Your task to perform on an android device: Add "alienware area 51" to the cart on walmart Image 0: 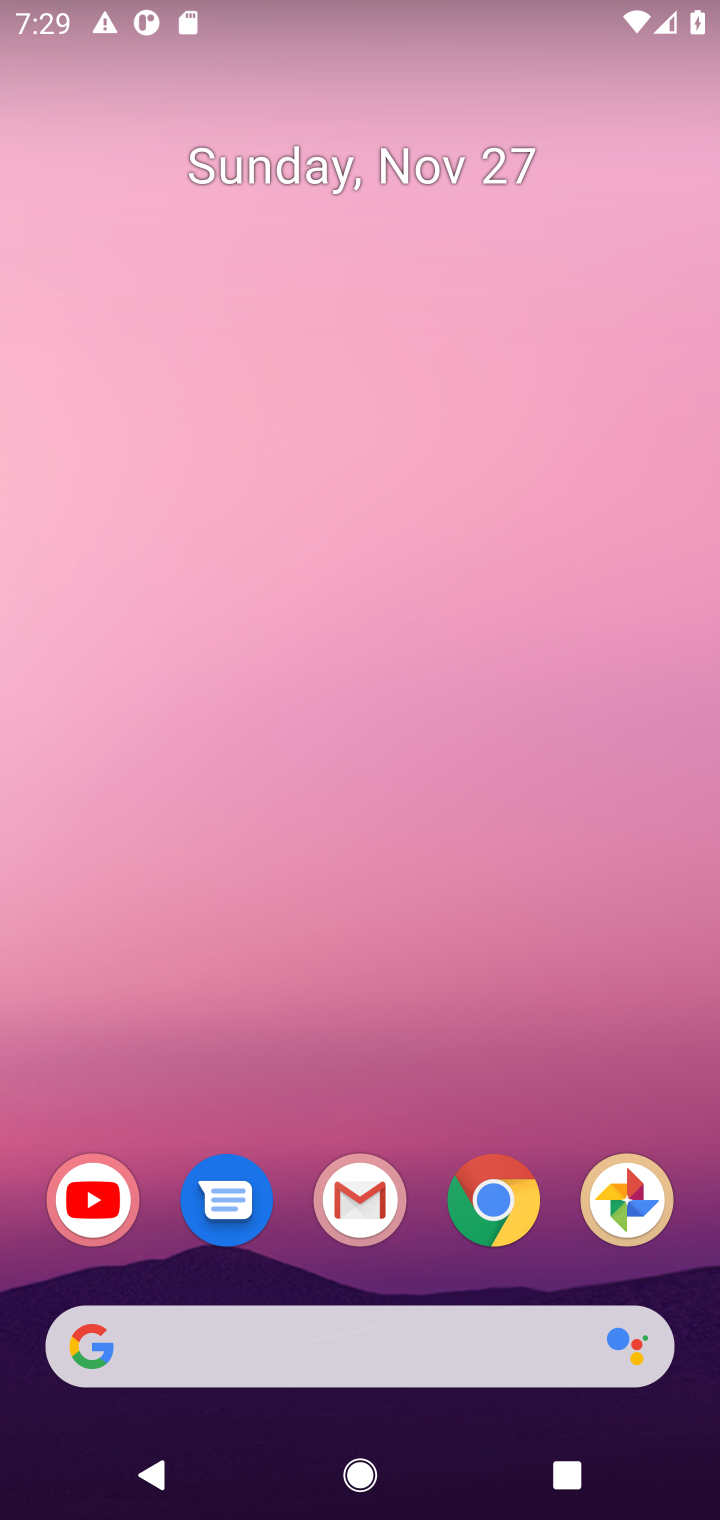
Step 0: click (474, 1198)
Your task to perform on an android device: Add "alienware area 51" to the cart on walmart Image 1: 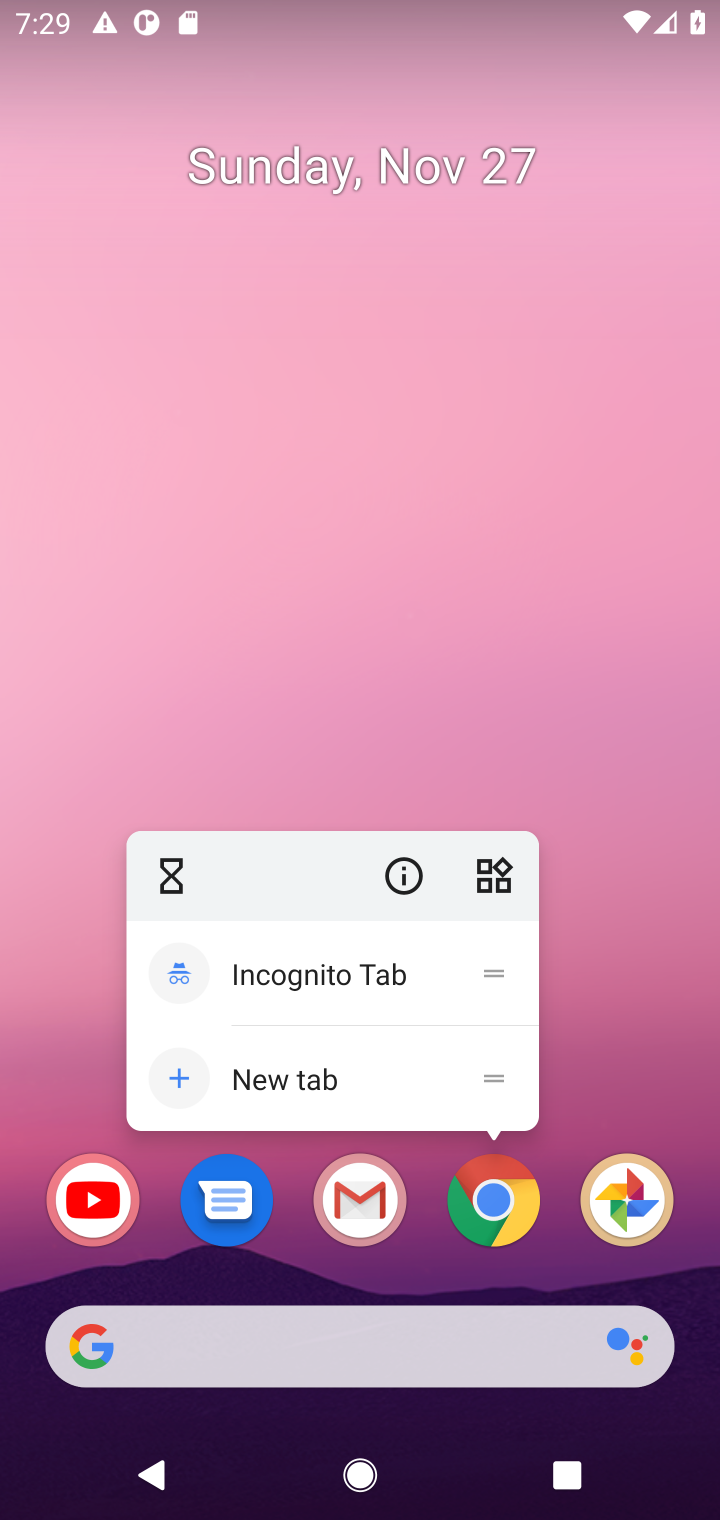
Step 1: click (492, 1234)
Your task to perform on an android device: Add "alienware area 51" to the cart on walmart Image 2: 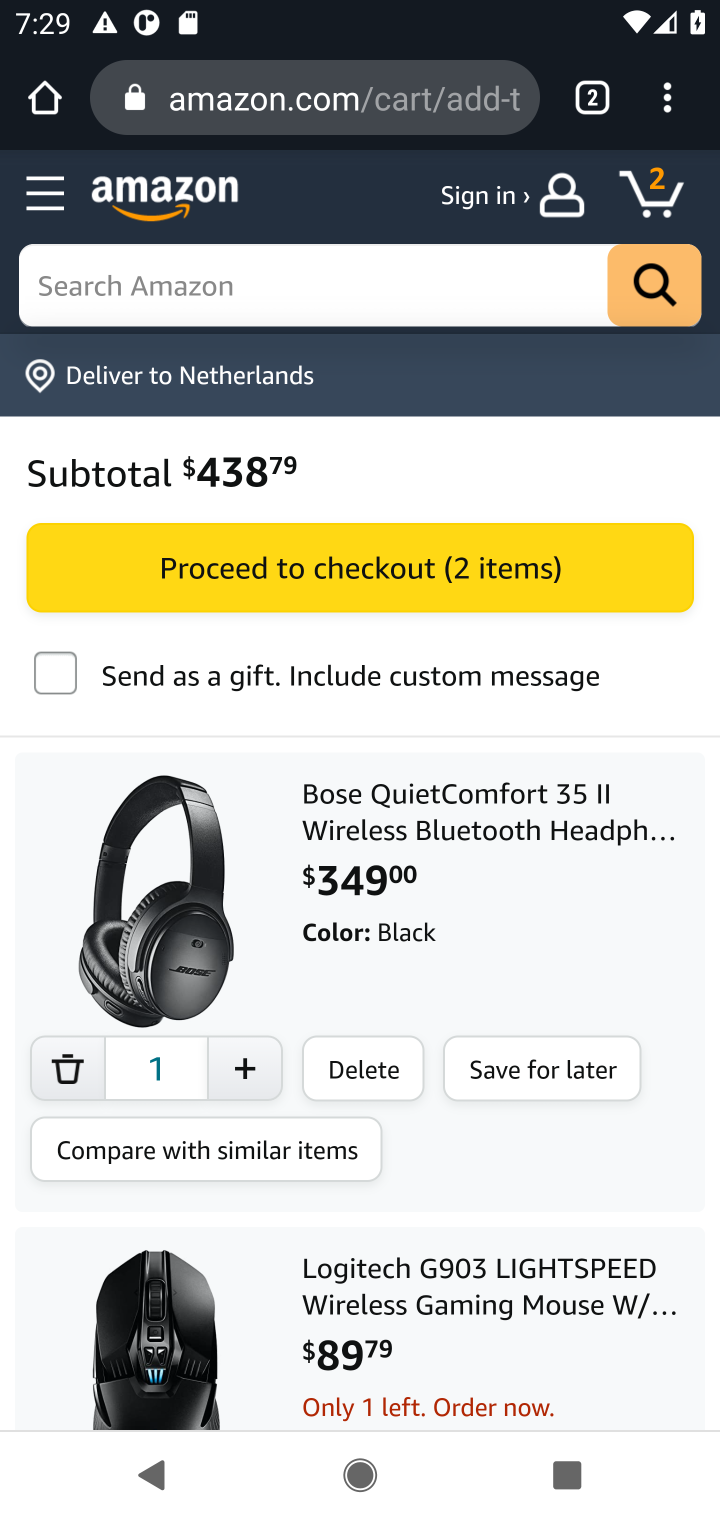
Step 2: click (265, 97)
Your task to perform on an android device: Add "alienware area 51" to the cart on walmart Image 3: 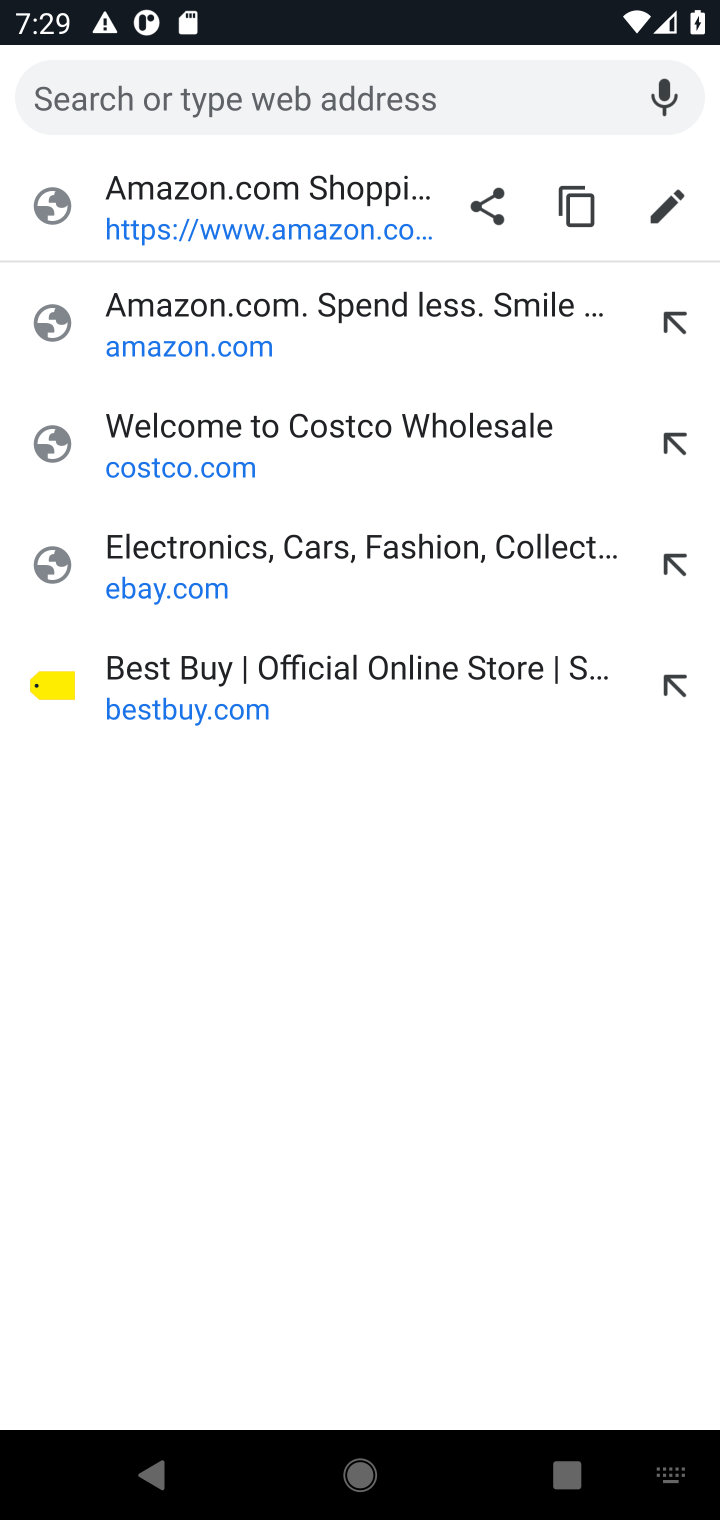
Step 3: type "walmart.com"
Your task to perform on an android device: Add "alienware area 51" to the cart on walmart Image 4: 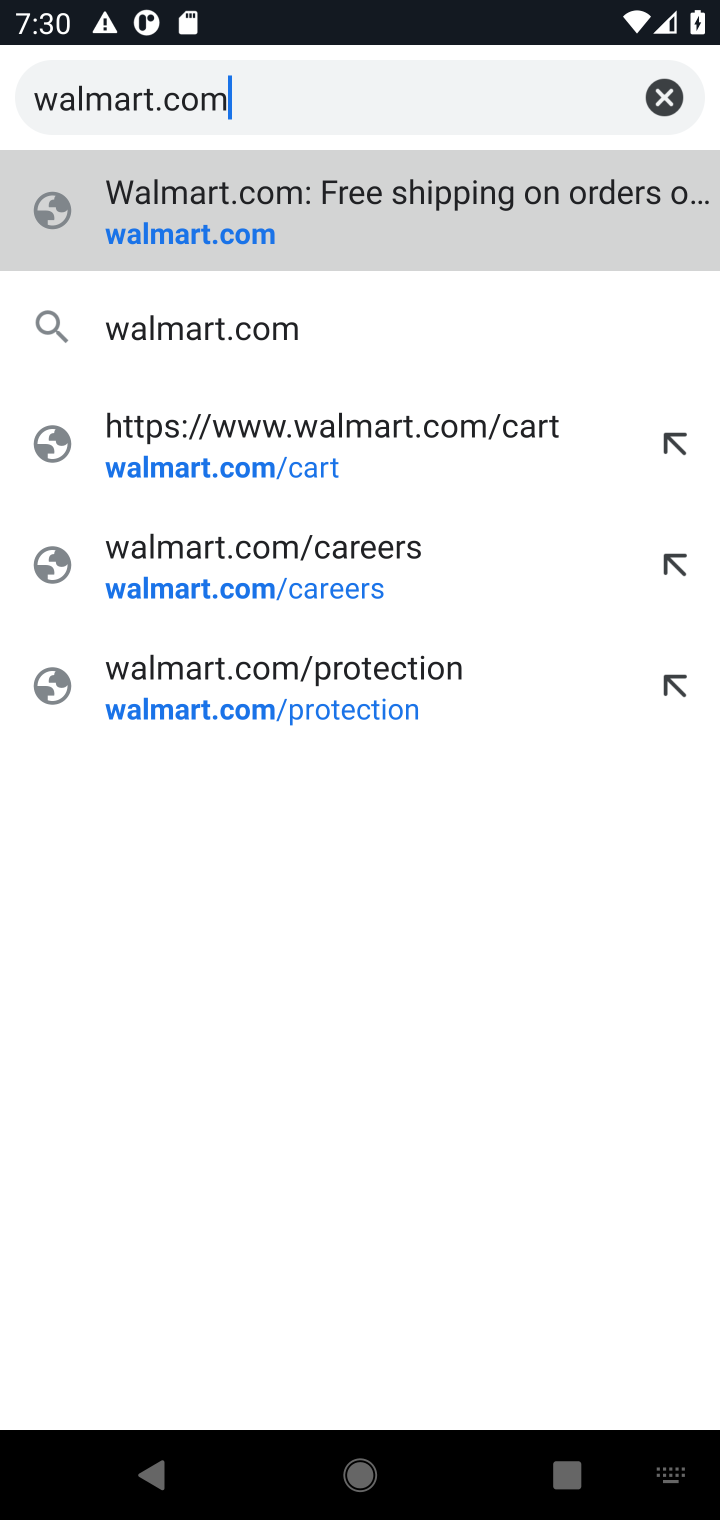
Step 4: click (216, 238)
Your task to perform on an android device: Add "alienware area 51" to the cart on walmart Image 5: 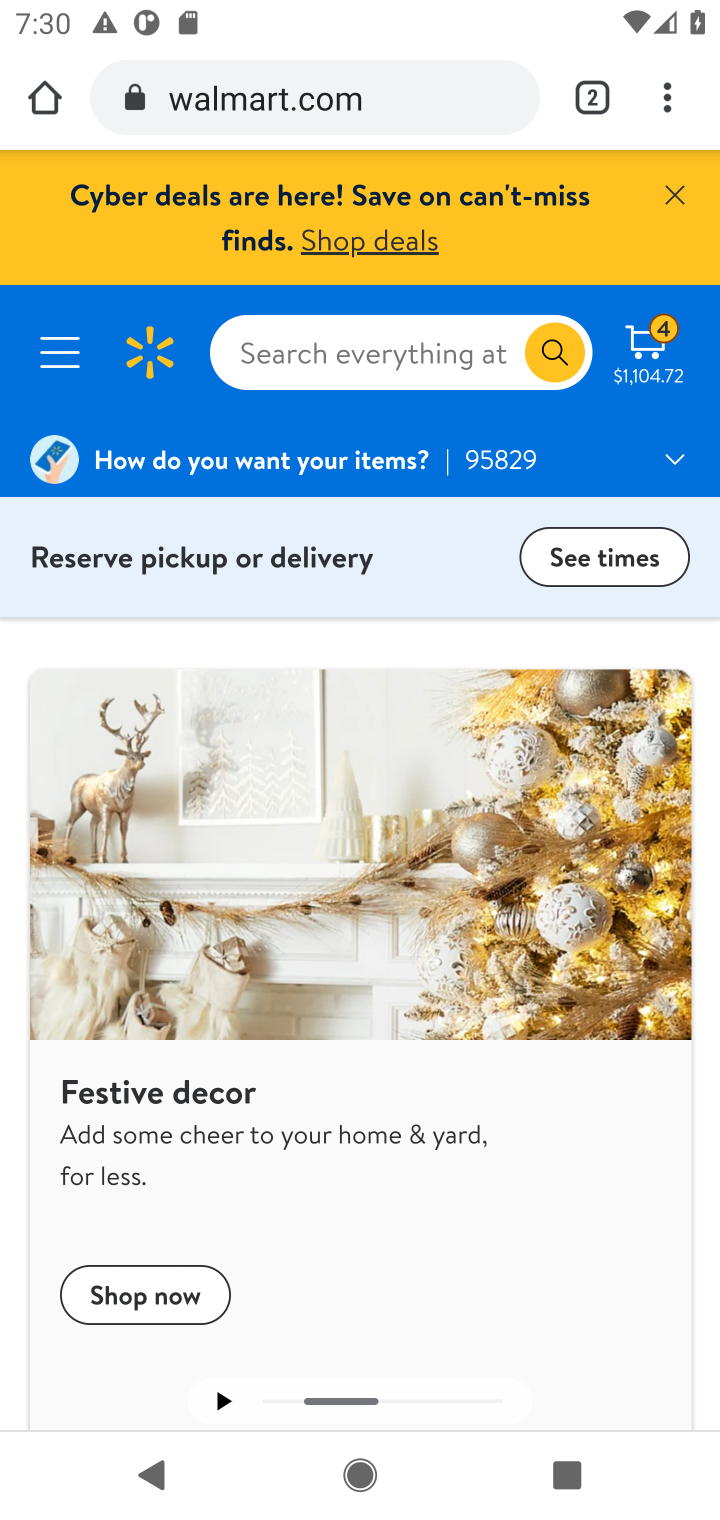
Step 5: click (284, 338)
Your task to perform on an android device: Add "alienware area 51" to the cart on walmart Image 6: 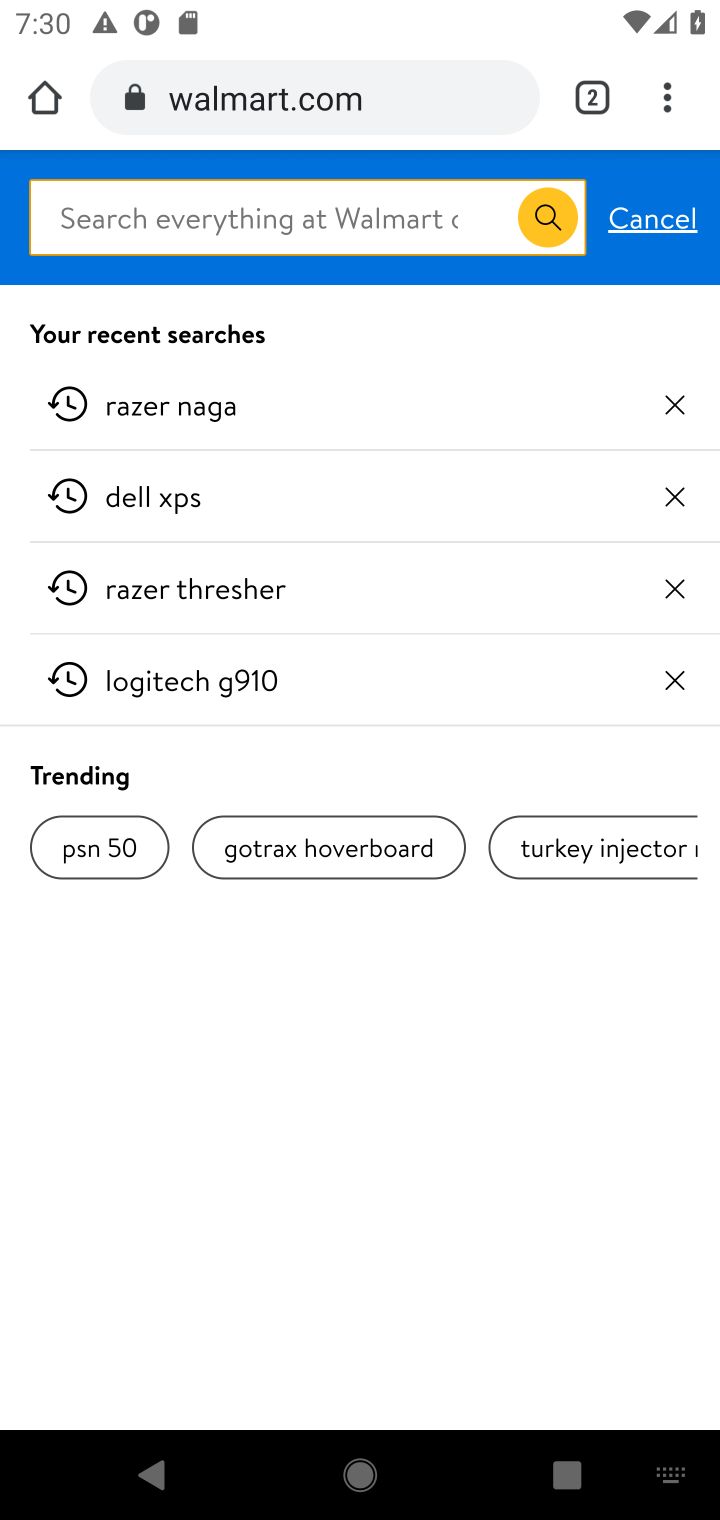
Step 6: type "alienware area 51"
Your task to perform on an android device: Add "alienware area 51" to the cart on walmart Image 7: 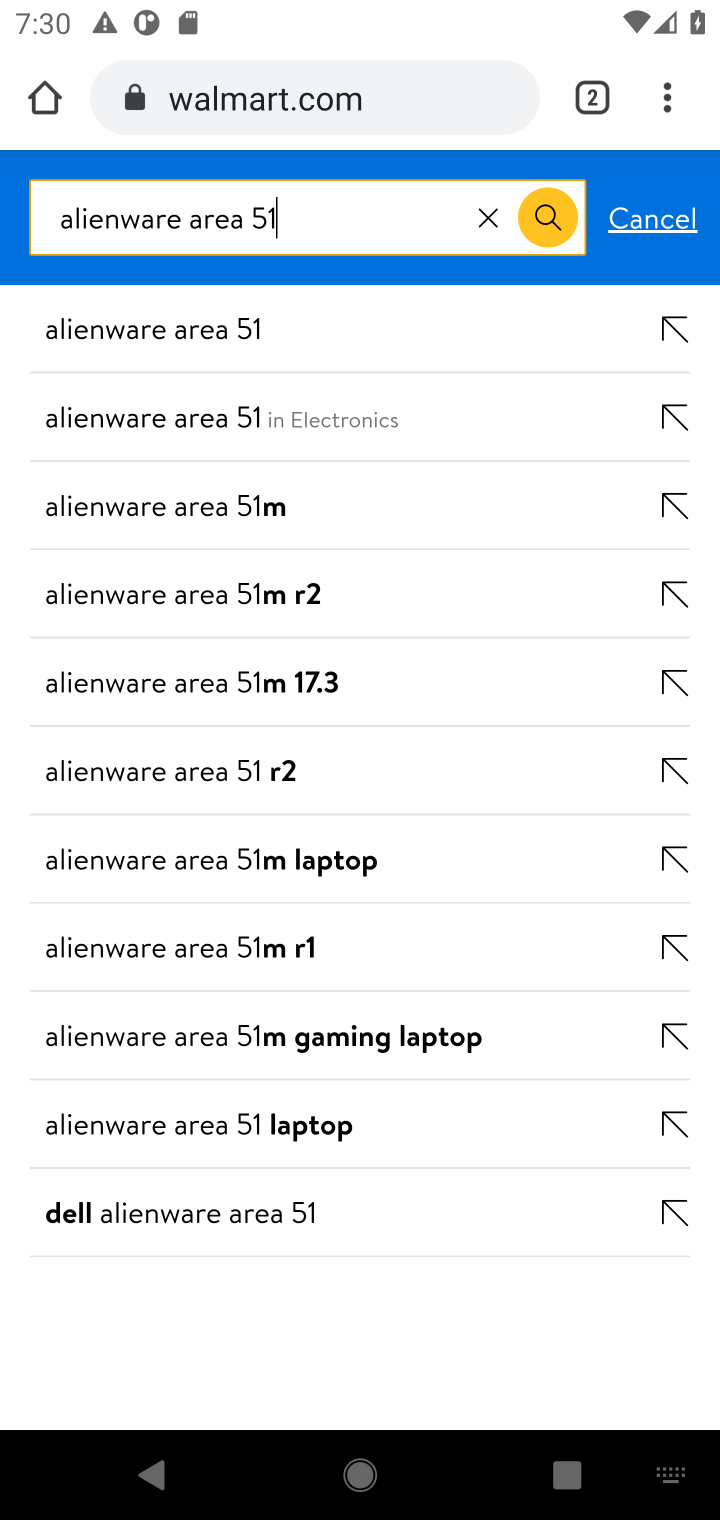
Step 7: click (216, 331)
Your task to perform on an android device: Add "alienware area 51" to the cart on walmart Image 8: 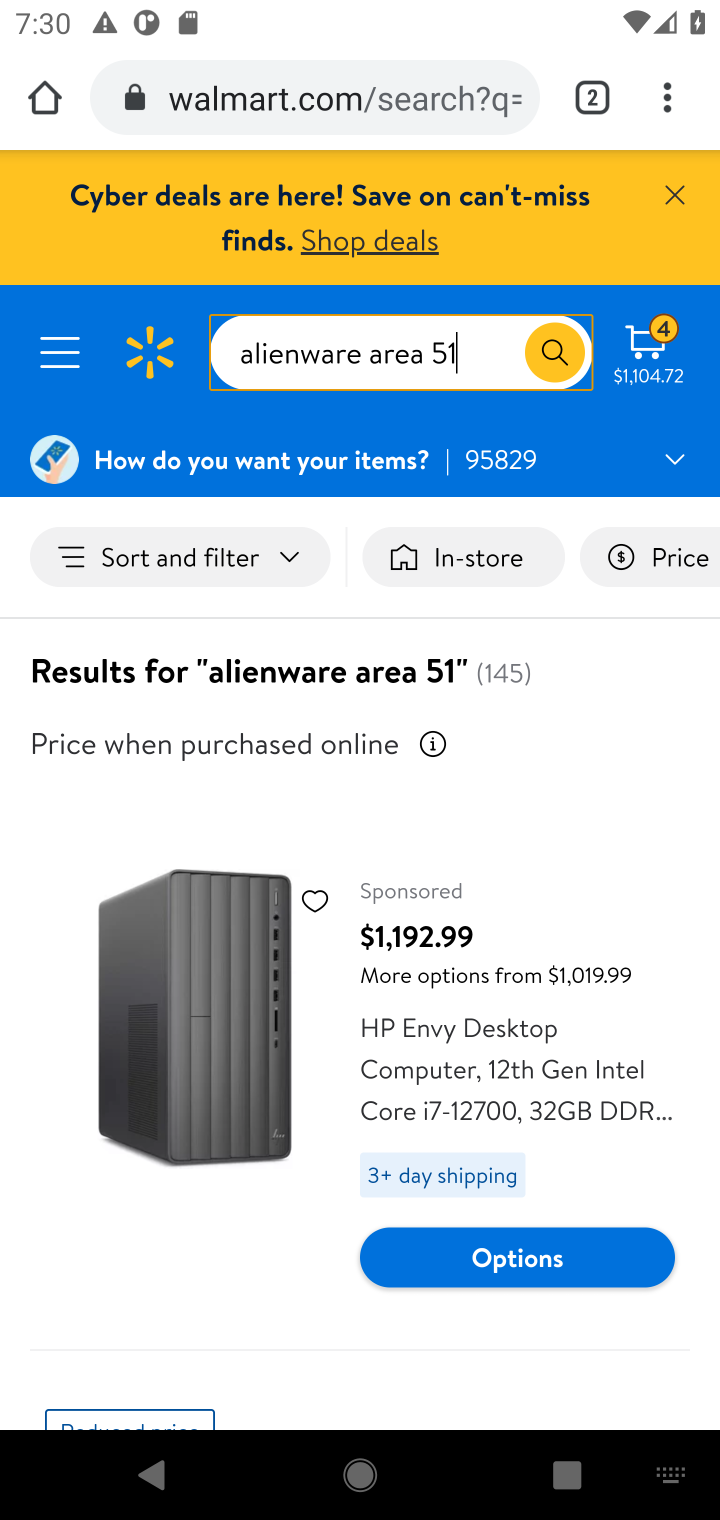
Step 8: drag from (261, 1031) to (279, 403)
Your task to perform on an android device: Add "alienware area 51" to the cart on walmart Image 9: 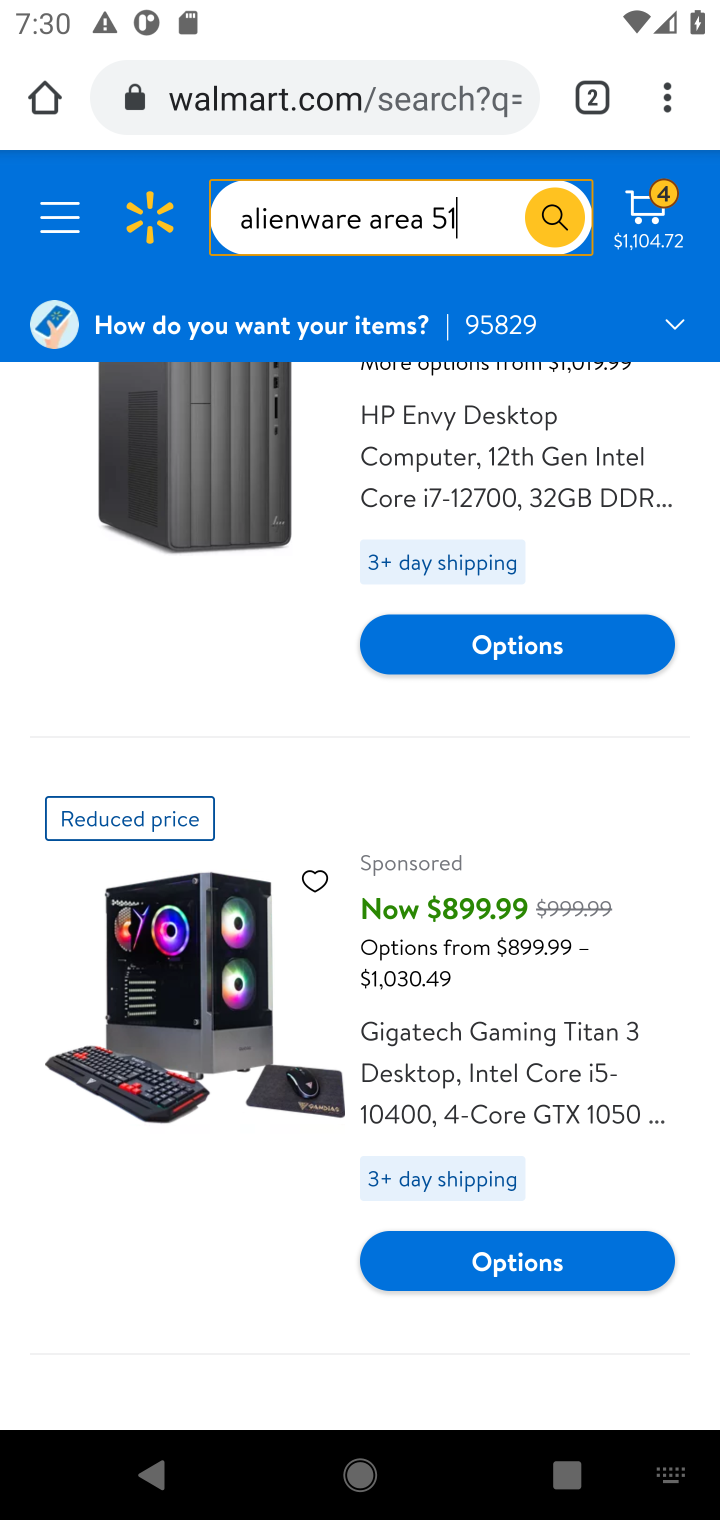
Step 9: drag from (260, 992) to (258, 455)
Your task to perform on an android device: Add "alienware area 51" to the cart on walmart Image 10: 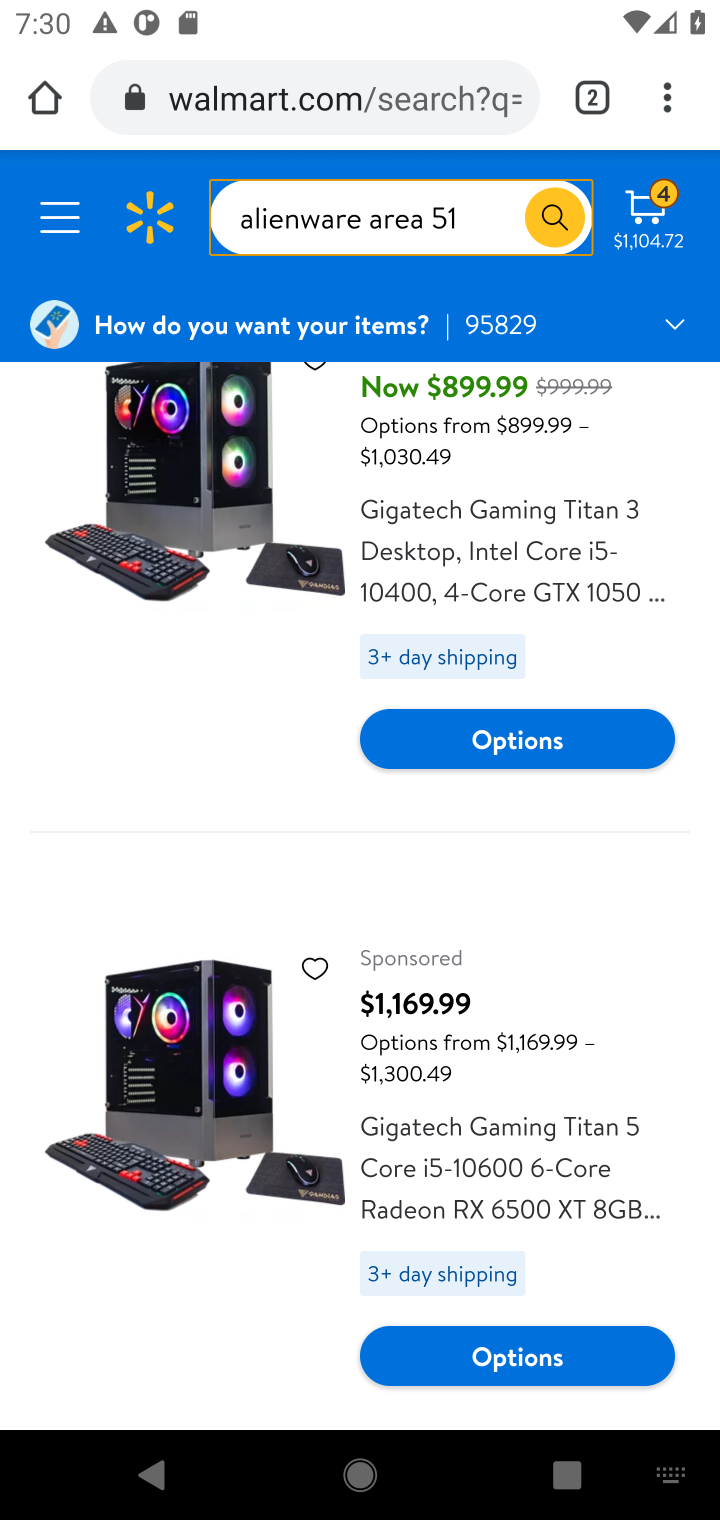
Step 10: drag from (270, 1000) to (227, 410)
Your task to perform on an android device: Add "alienware area 51" to the cart on walmart Image 11: 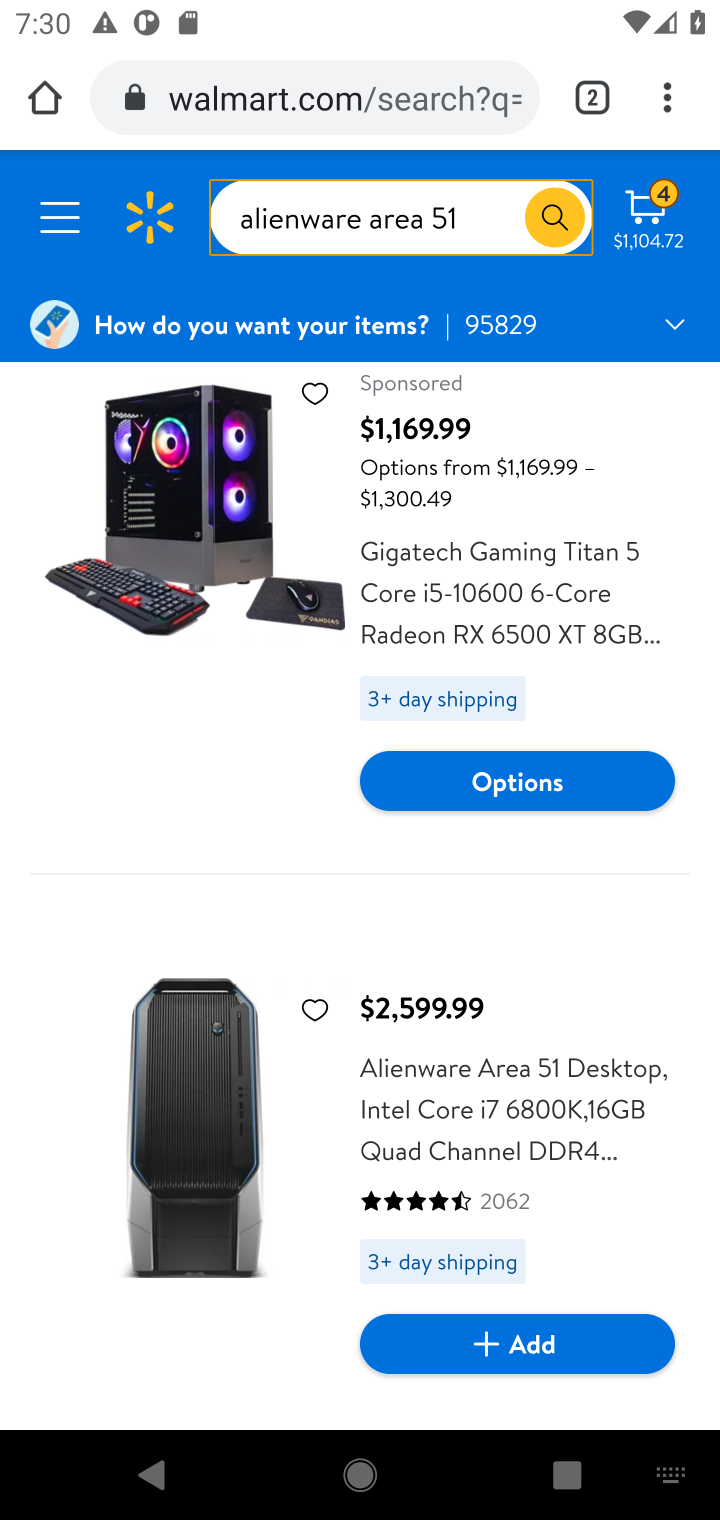
Step 11: drag from (181, 936) to (183, 596)
Your task to perform on an android device: Add "alienware area 51" to the cart on walmart Image 12: 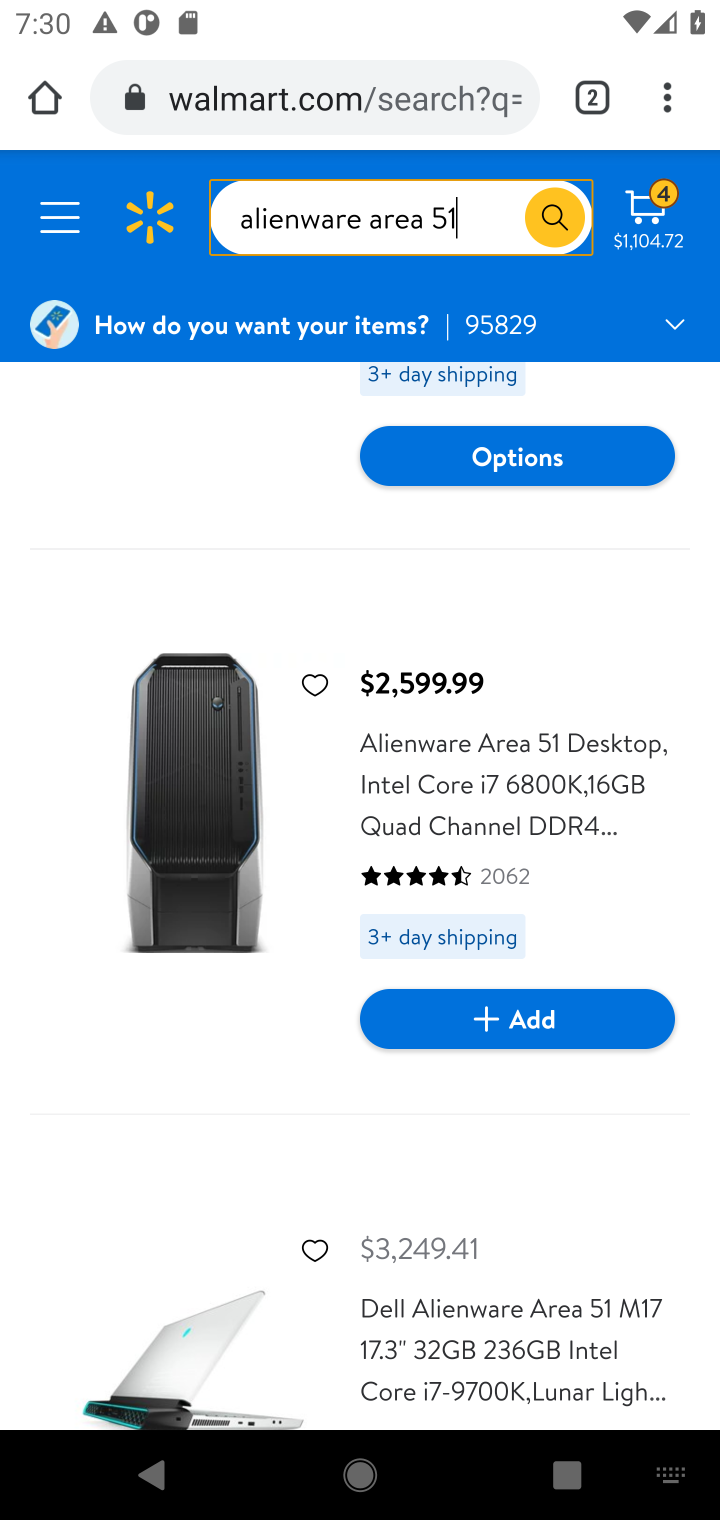
Step 12: click (571, 1008)
Your task to perform on an android device: Add "alienware area 51" to the cart on walmart Image 13: 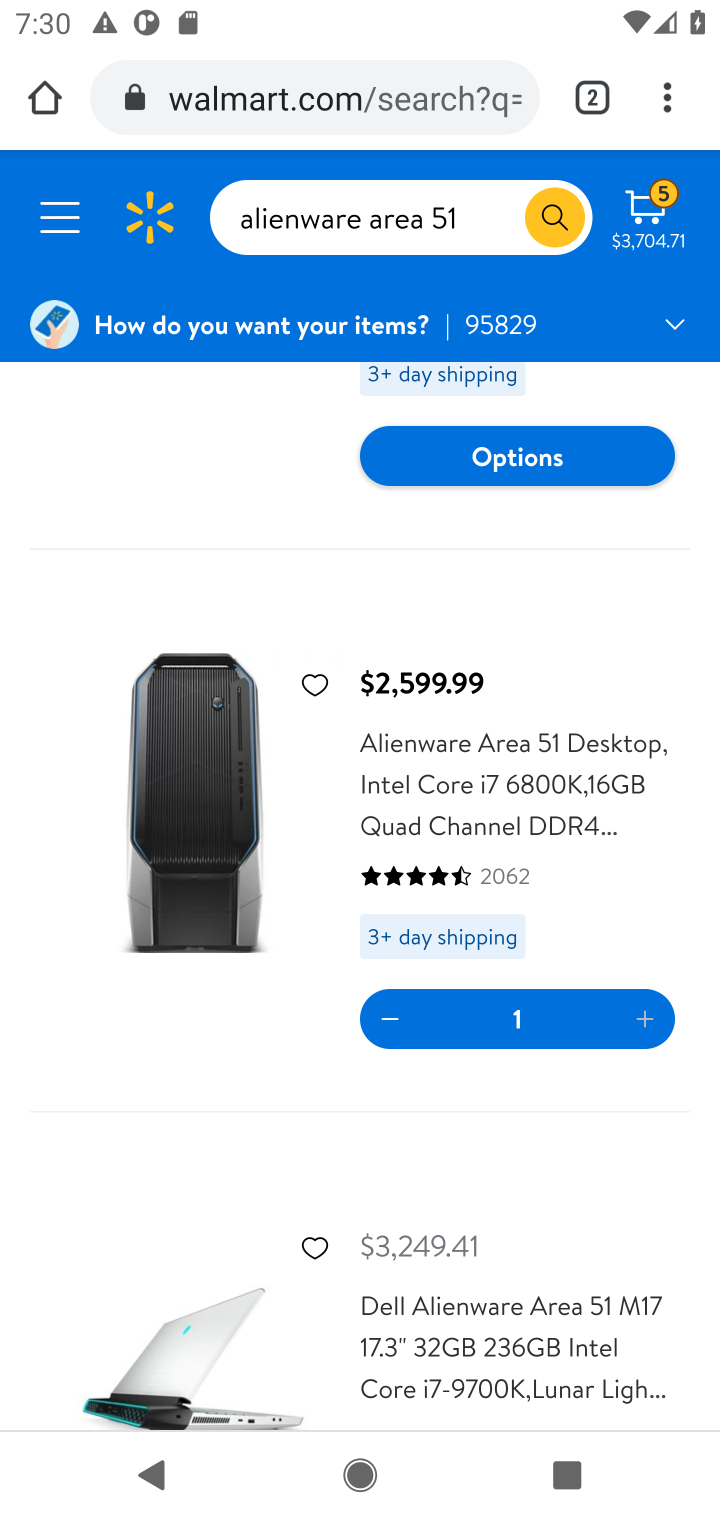
Step 13: task complete